Your task to perform on an android device: How much does a 3 bedroom apartment rent for in Seattle? Image 0: 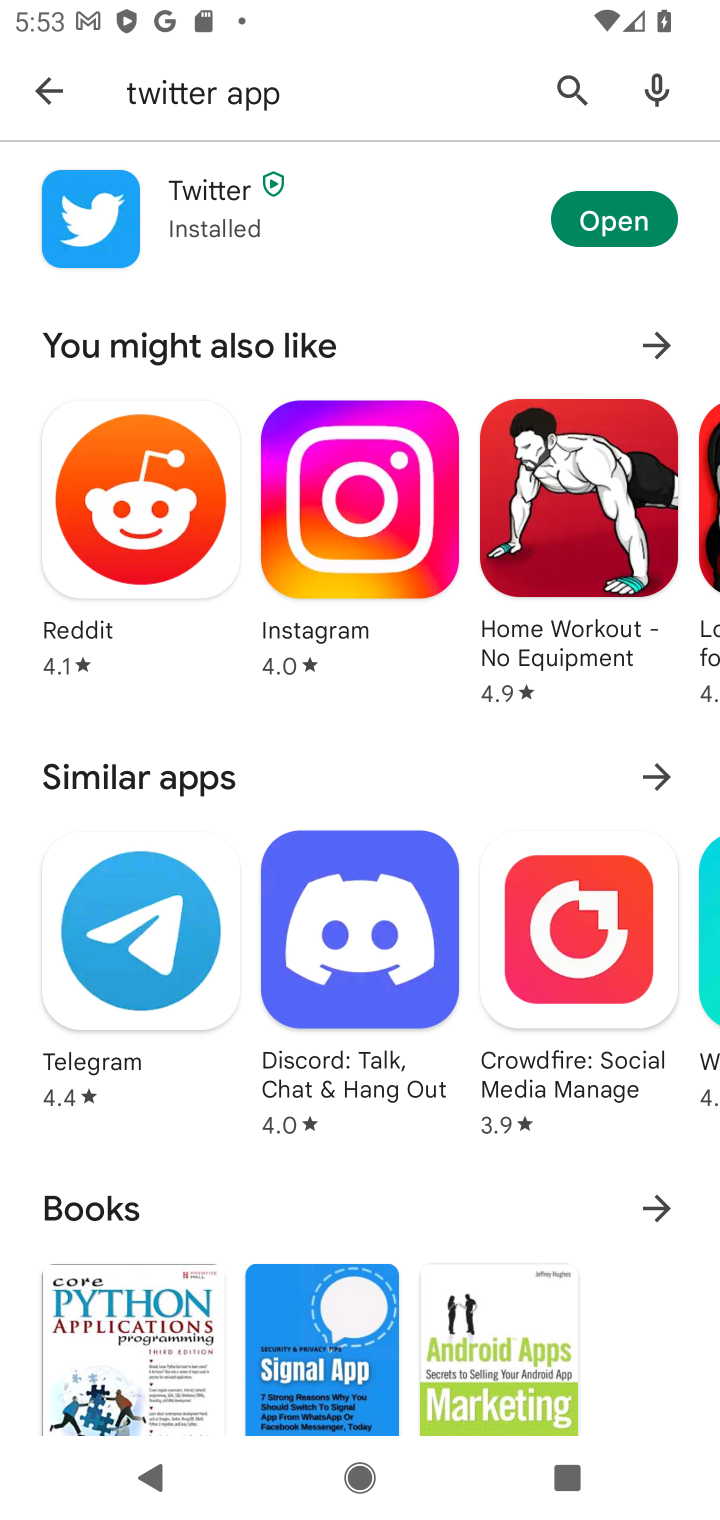
Step 0: press home button
Your task to perform on an android device: How much does a 3 bedroom apartment rent for in Seattle? Image 1: 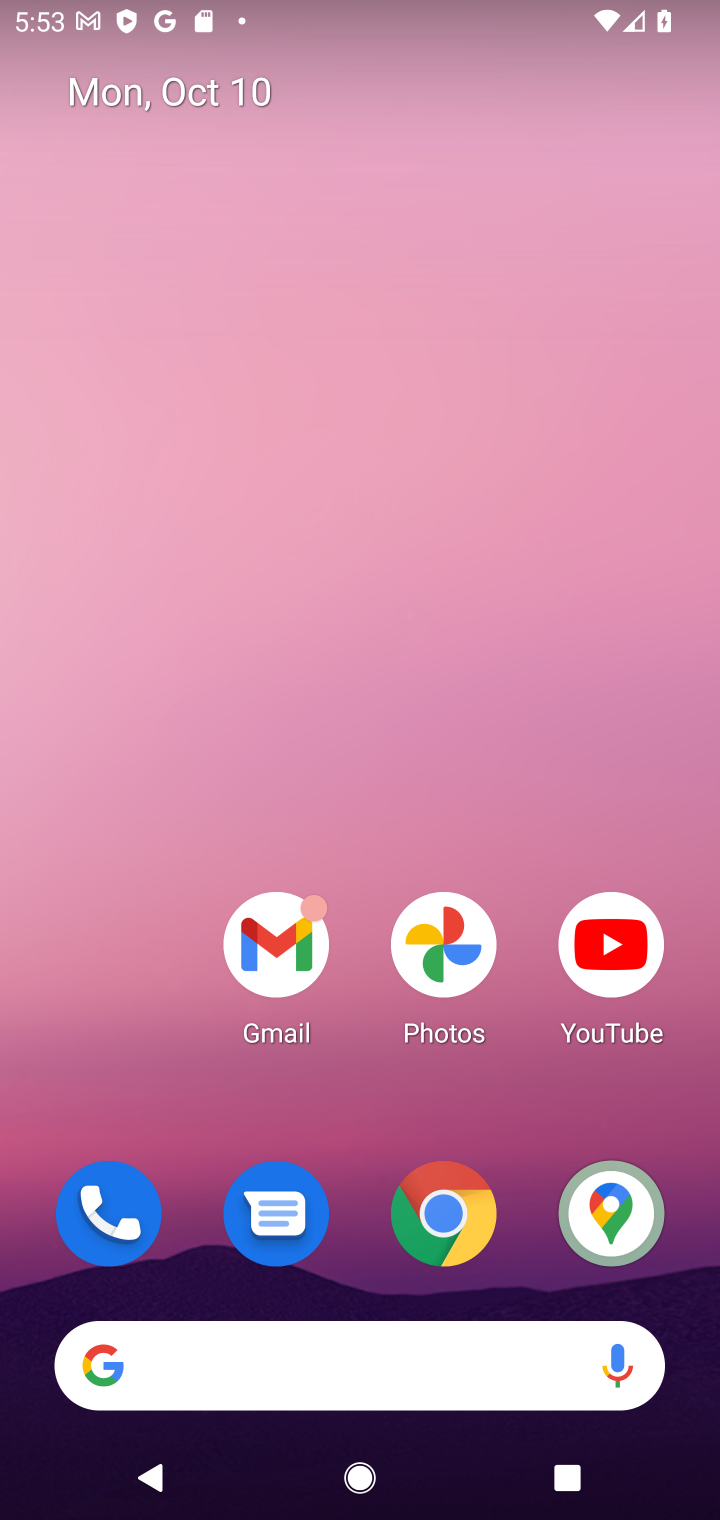
Step 1: click (277, 1359)
Your task to perform on an android device: How much does a 3 bedroom apartment rent for in Seattle? Image 2: 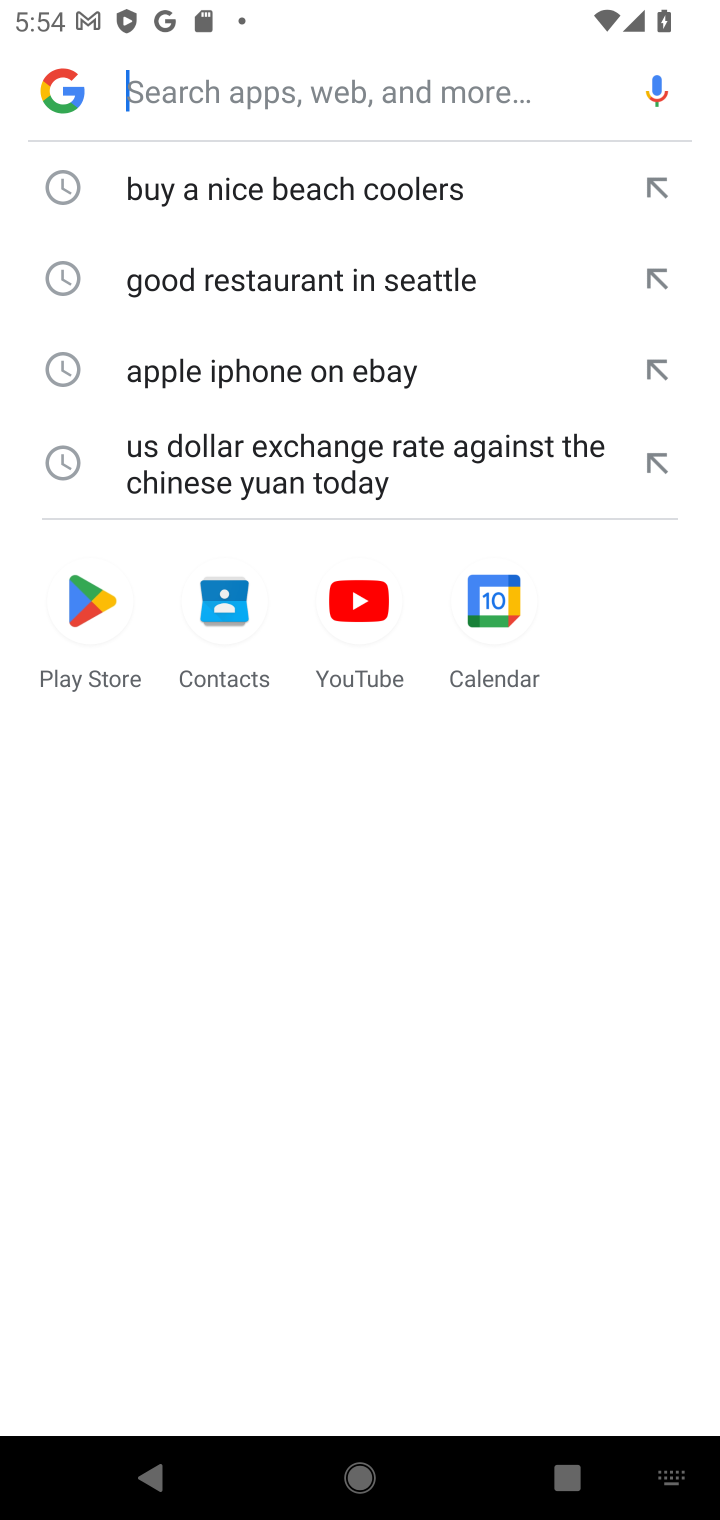
Step 2: type "3 bedroom apartment rent for in Seattle"
Your task to perform on an android device: How much does a 3 bedroom apartment rent for in Seattle? Image 3: 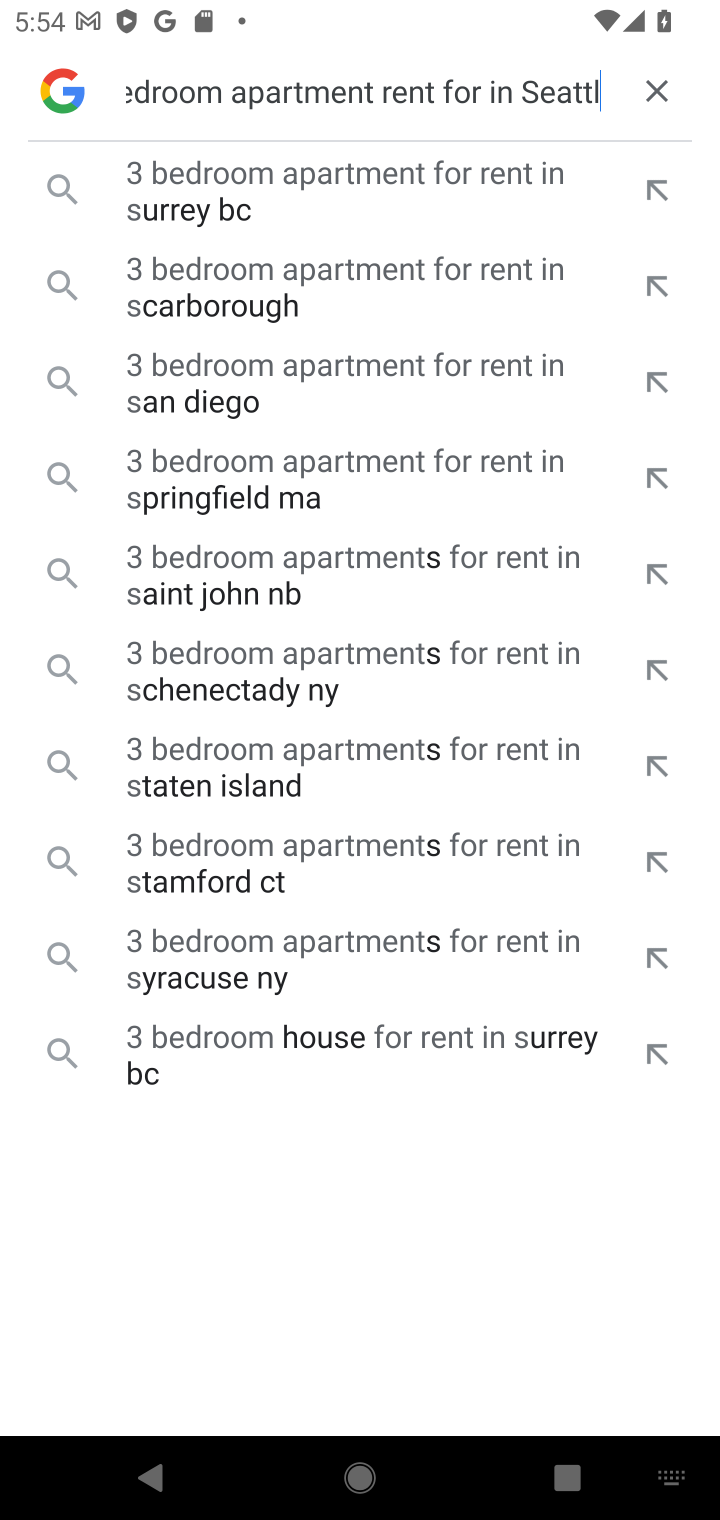
Step 3: type ""
Your task to perform on an android device: How much does a 3 bedroom apartment rent for in Seattle? Image 4: 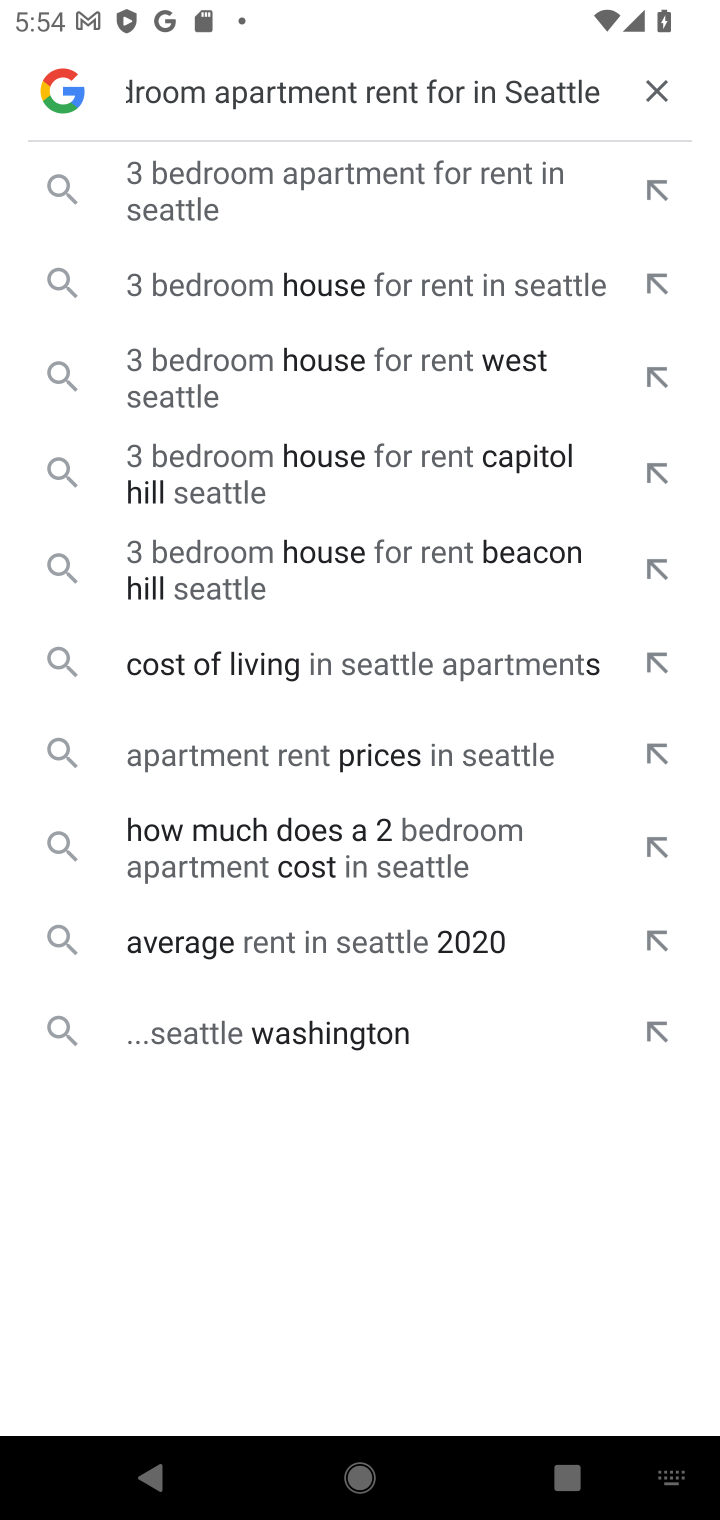
Step 4: click (325, 191)
Your task to perform on an android device: How much does a 3 bedroom apartment rent for in Seattle? Image 5: 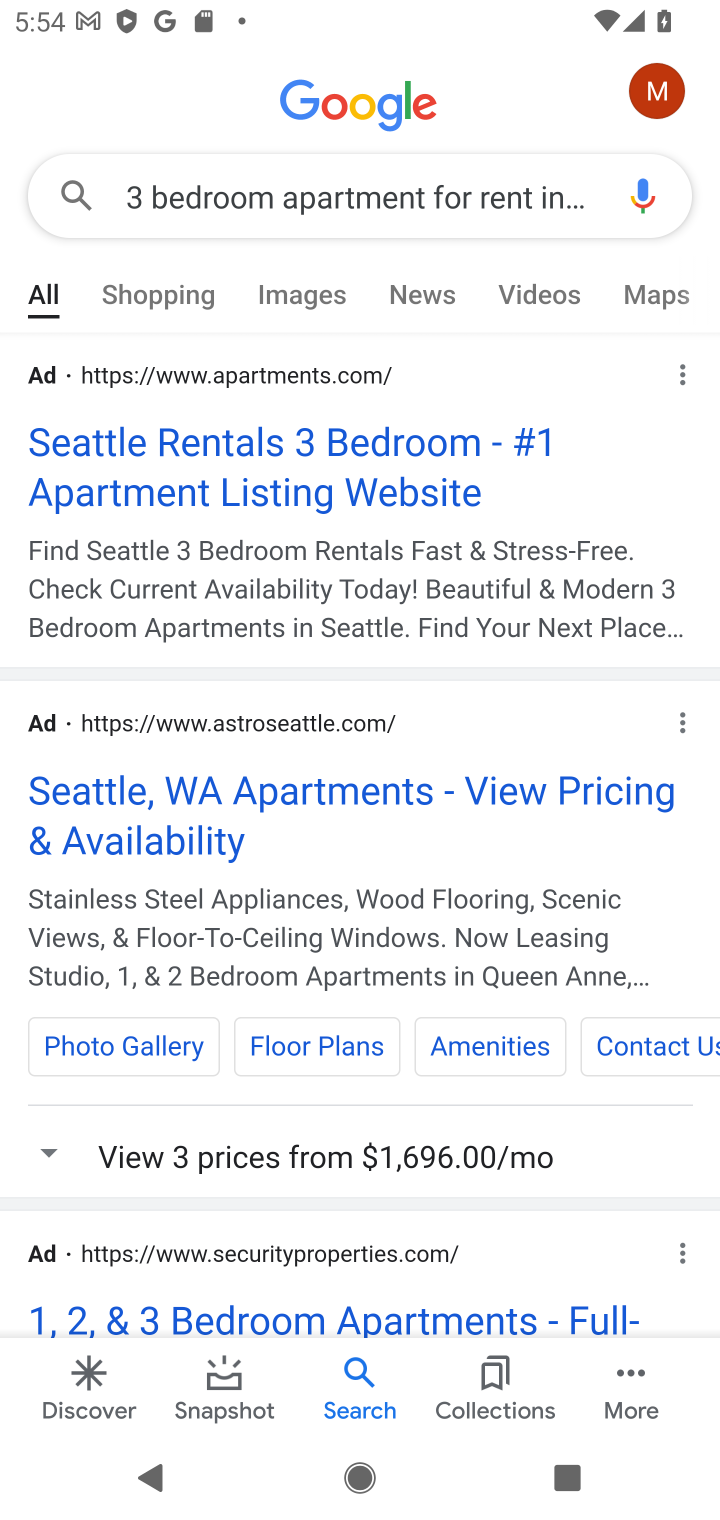
Step 5: drag from (359, 1142) to (389, 610)
Your task to perform on an android device: How much does a 3 bedroom apartment rent for in Seattle? Image 6: 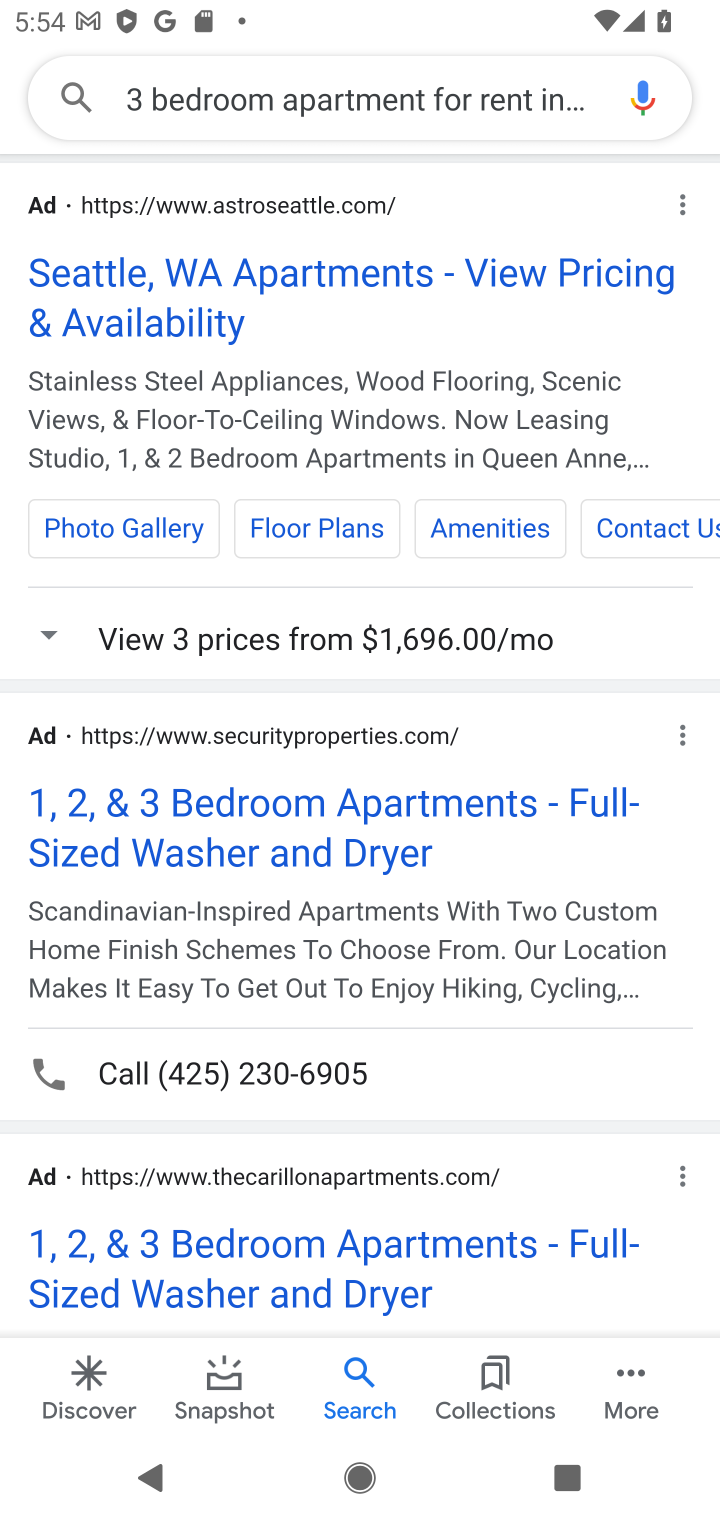
Step 6: drag from (394, 956) to (409, 566)
Your task to perform on an android device: How much does a 3 bedroom apartment rent for in Seattle? Image 7: 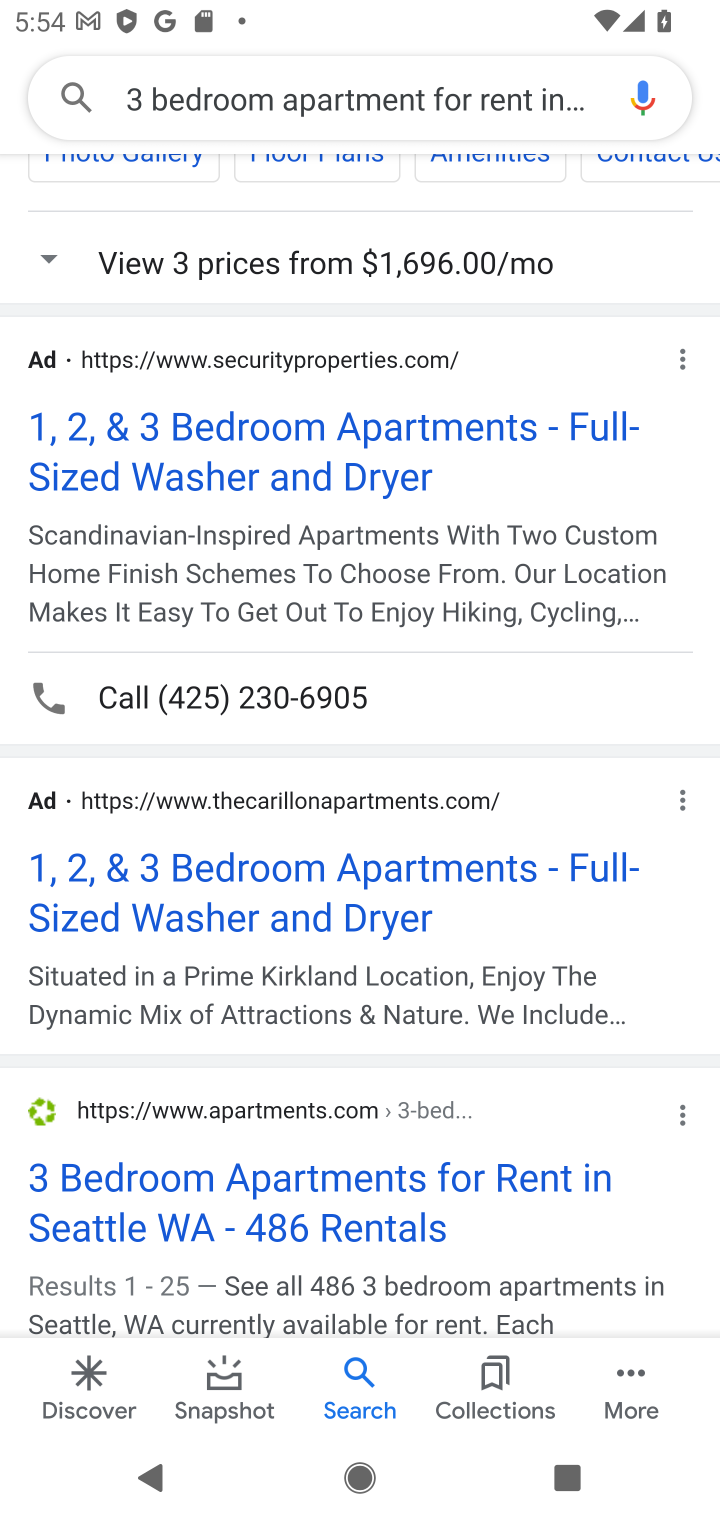
Step 7: drag from (312, 1061) to (319, 638)
Your task to perform on an android device: How much does a 3 bedroom apartment rent for in Seattle? Image 8: 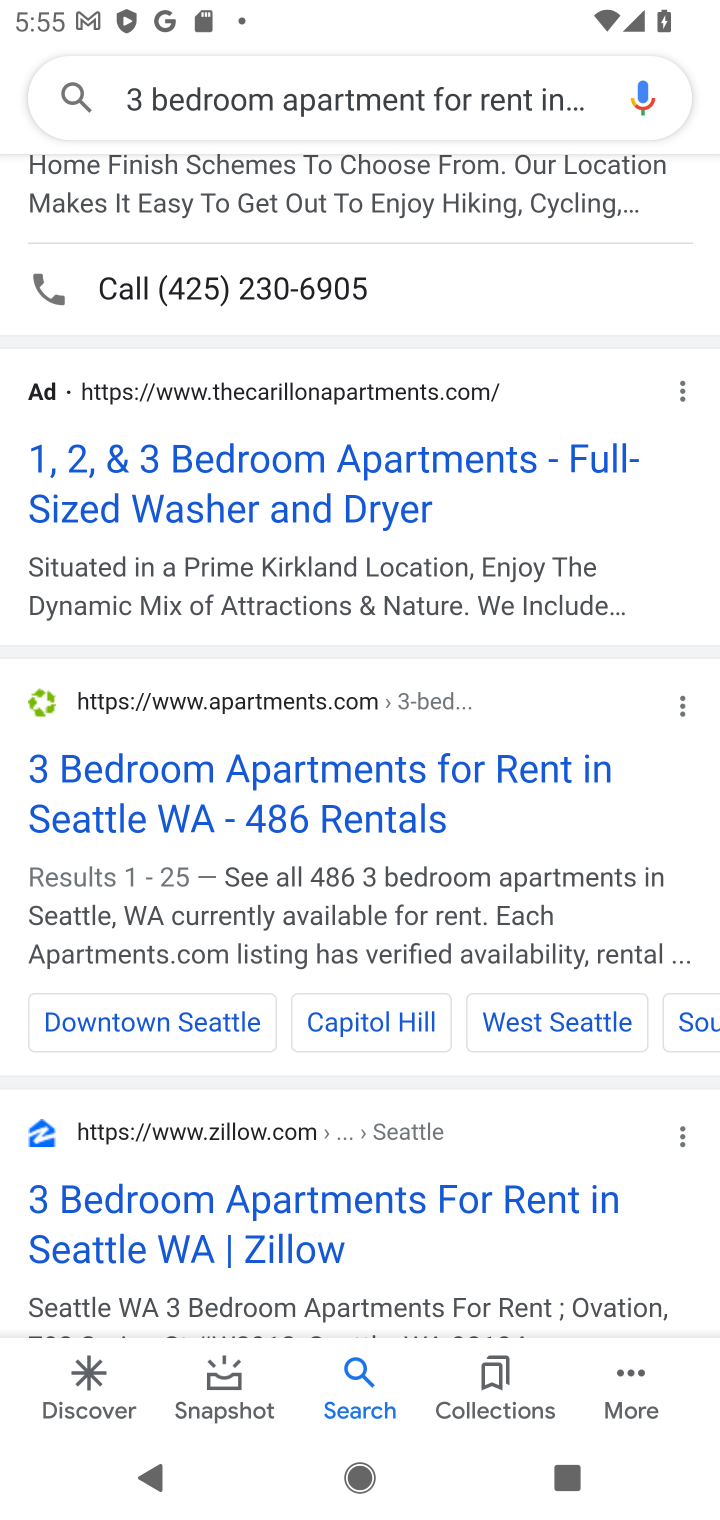
Step 8: click (332, 808)
Your task to perform on an android device: How much does a 3 bedroom apartment rent for in Seattle? Image 9: 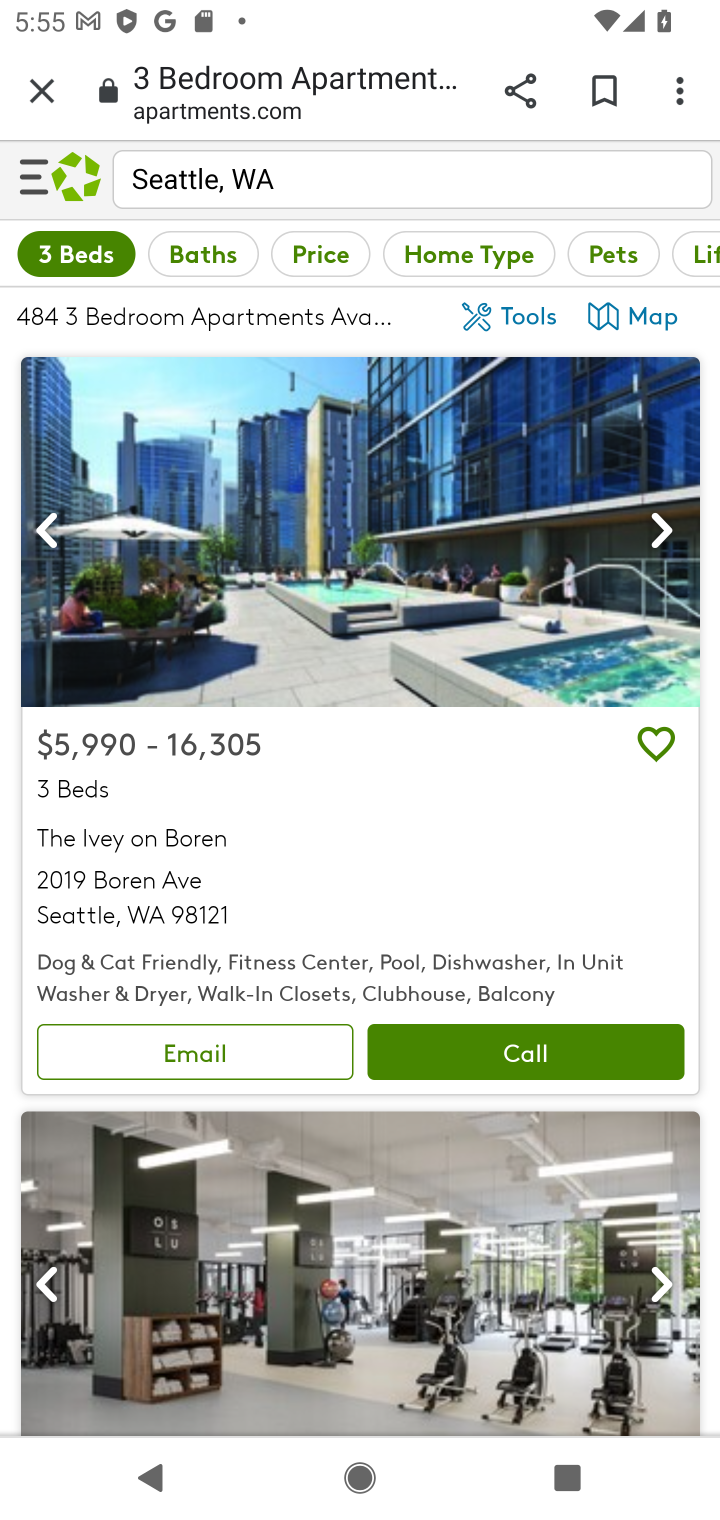
Step 9: task complete